Your task to perform on an android device: turn on javascript in the chrome app Image 0: 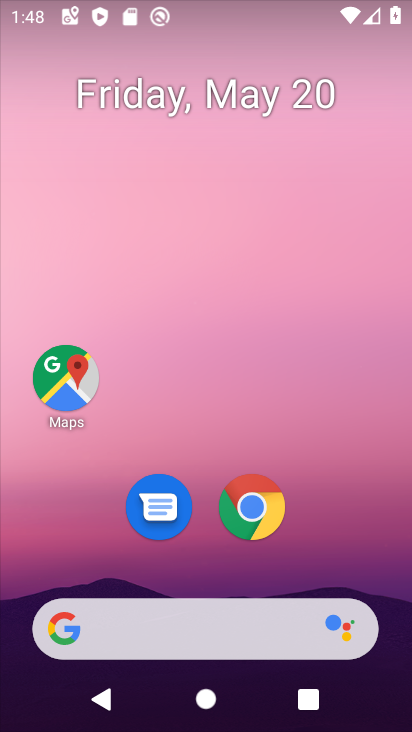
Step 0: click (244, 509)
Your task to perform on an android device: turn on javascript in the chrome app Image 1: 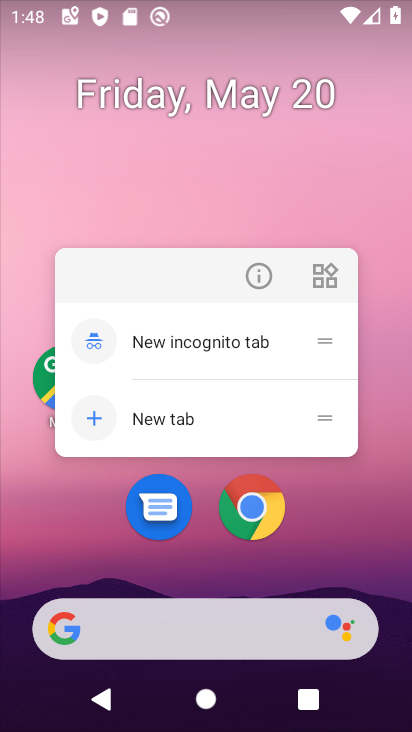
Step 1: click (259, 512)
Your task to perform on an android device: turn on javascript in the chrome app Image 2: 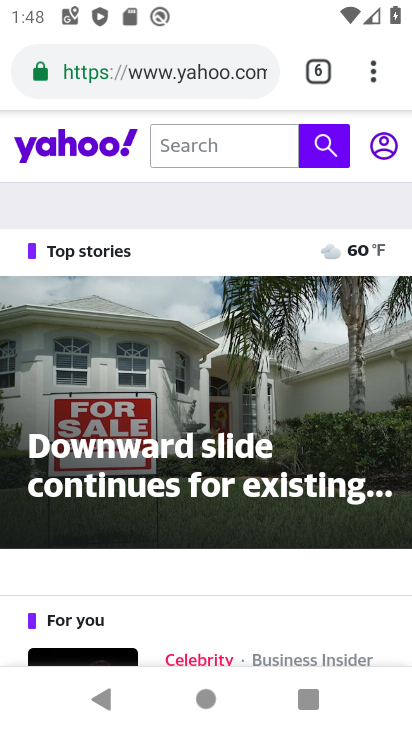
Step 2: click (375, 73)
Your task to perform on an android device: turn on javascript in the chrome app Image 3: 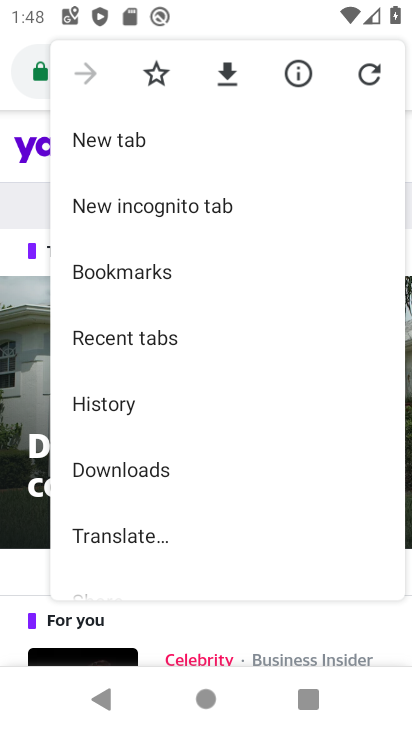
Step 3: drag from (201, 522) to (196, 114)
Your task to perform on an android device: turn on javascript in the chrome app Image 4: 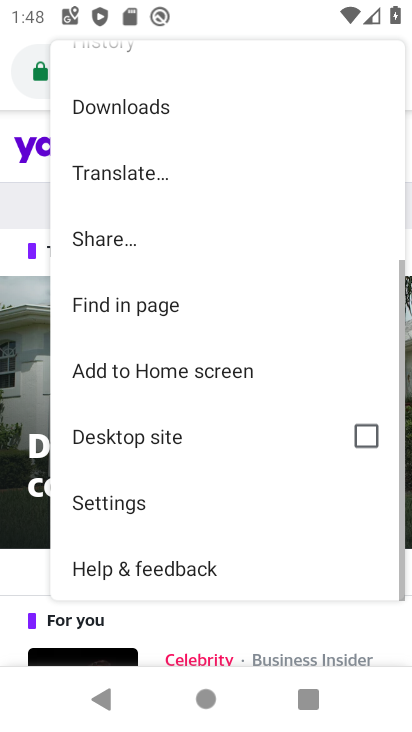
Step 4: click (101, 503)
Your task to perform on an android device: turn on javascript in the chrome app Image 5: 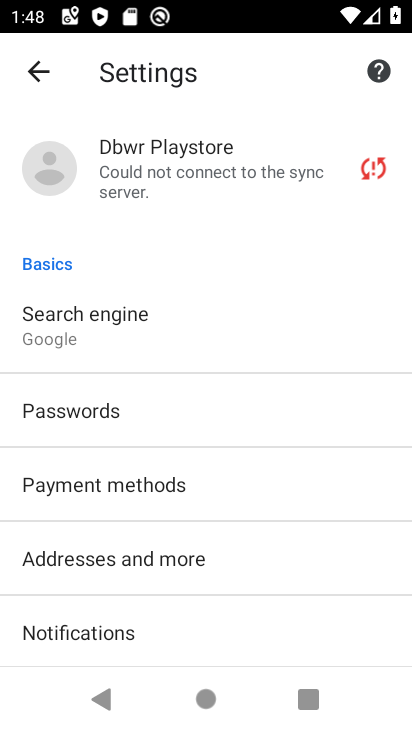
Step 5: drag from (166, 628) to (194, 239)
Your task to perform on an android device: turn on javascript in the chrome app Image 6: 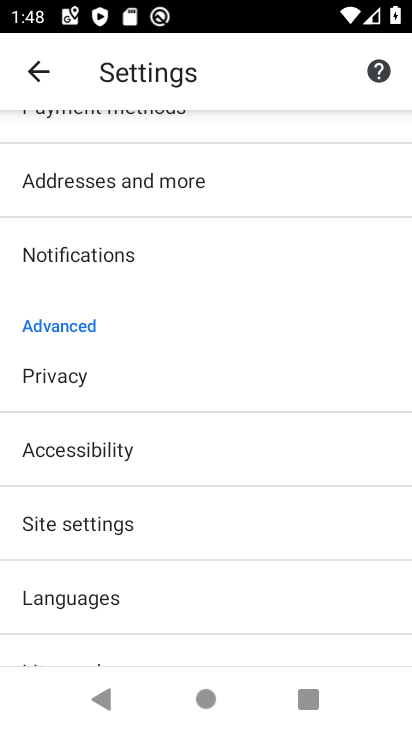
Step 6: drag from (119, 590) to (131, 238)
Your task to perform on an android device: turn on javascript in the chrome app Image 7: 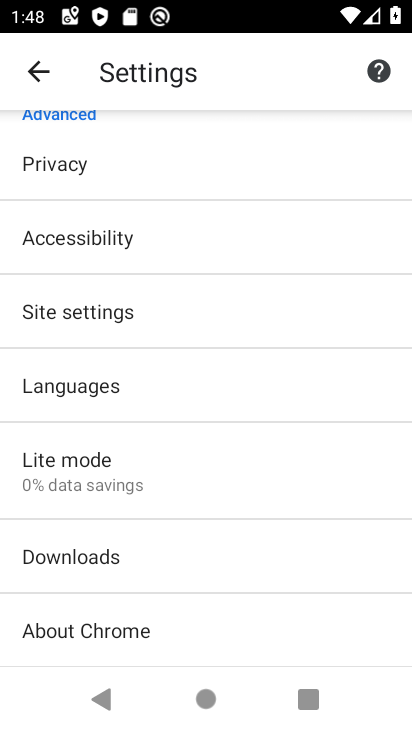
Step 7: click (62, 304)
Your task to perform on an android device: turn on javascript in the chrome app Image 8: 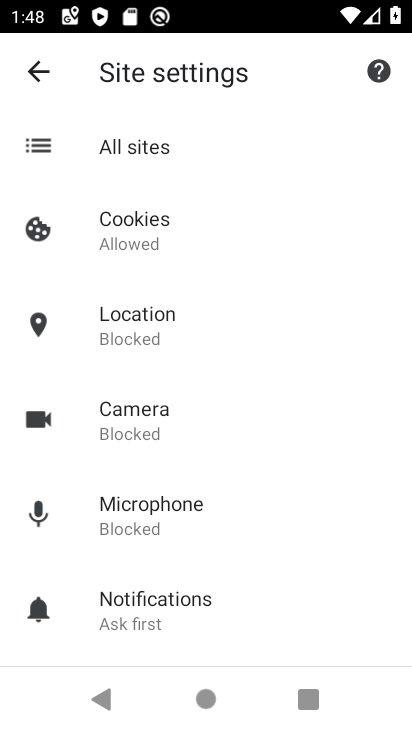
Step 8: drag from (197, 613) to (202, 163)
Your task to perform on an android device: turn on javascript in the chrome app Image 9: 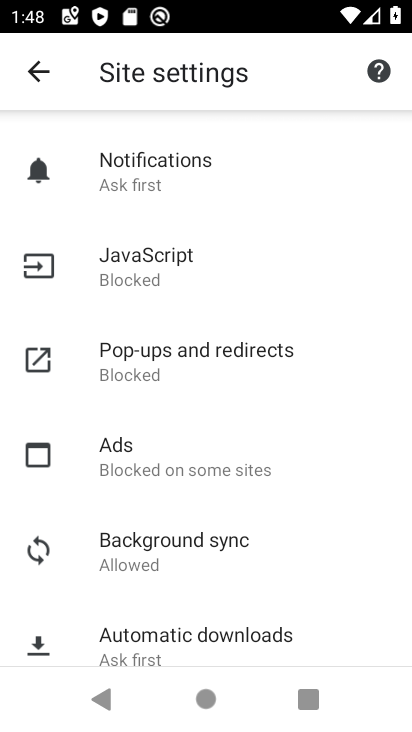
Step 9: click (142, 262)
Your task to perform on an android device: turn on javascript in the chrome app Image 10: 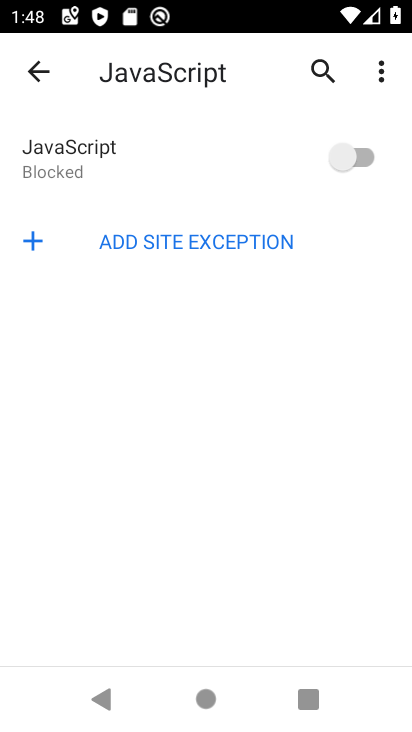
Step 10: click (358, 159)
Your task to perform on an android device: turn on javascript in the chrome app Image 11: 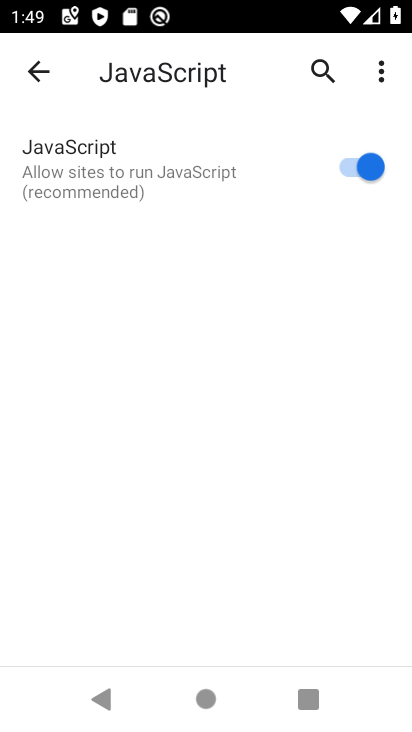
Step 11: task complete